Your task to perform on an android device: open chrome and create a bookmark for the current page Image 0: 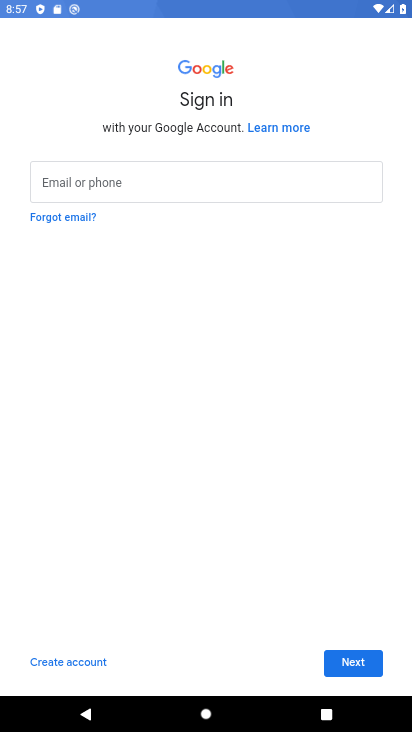
Step 0: press back button
Your task to perform on an android device: open chrome and create a bookmark for the current page Image 1: 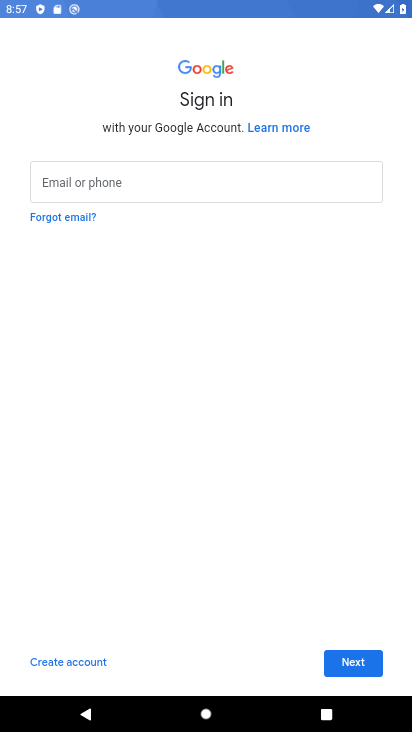
Step 1: press back button
Your task to perform on an android device: open chrome and create a bookmark for the current page Image 2: 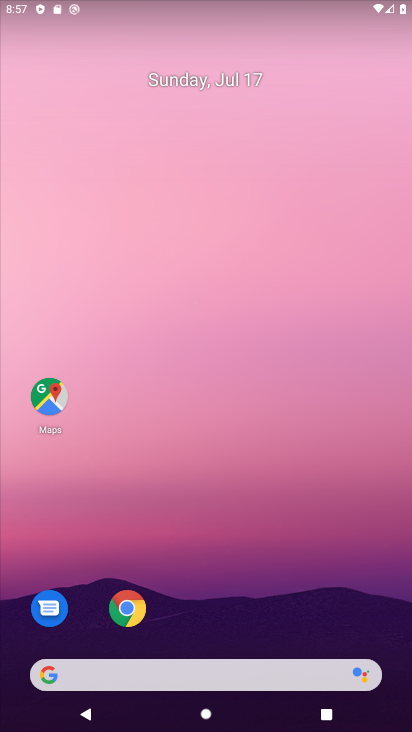
Step 2: drag from (282, 666) to (218, 401)
Your task to perform on an android device: open chrome and create a bookmark for the current page Image 3: 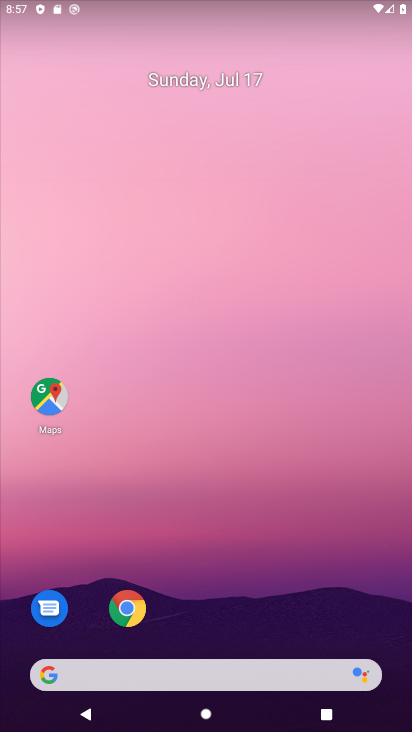
Step 3: drag from (285, 603) to (264, 129)
Your task to perform on an android device: open chrome and create a bookmark for the current page Image 4: 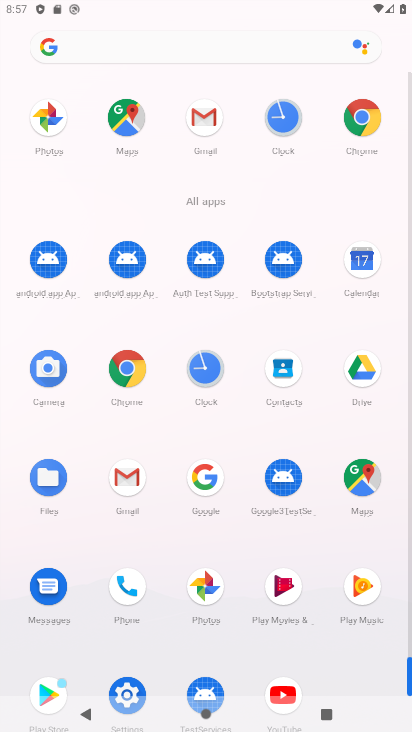
Step 4: drag from (240, 636) to (236, 218)
Your task to perform on an android device: open chrome and create a bookmark for the current page Image 5: 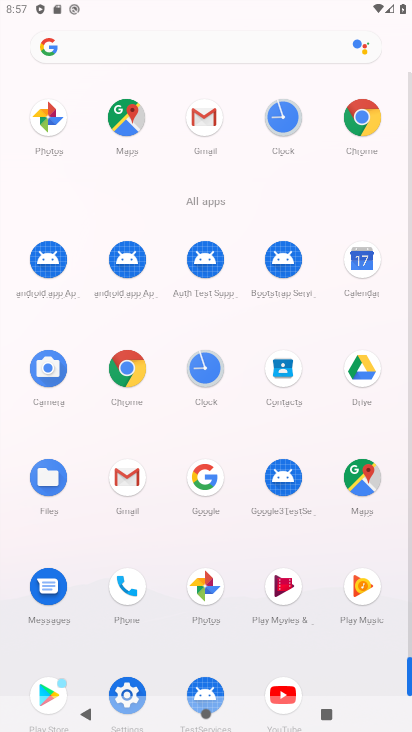
Step 5: click (352, 125)
Your task to perform on an android device: open chrome and create a bookmark for the current page Image 6: 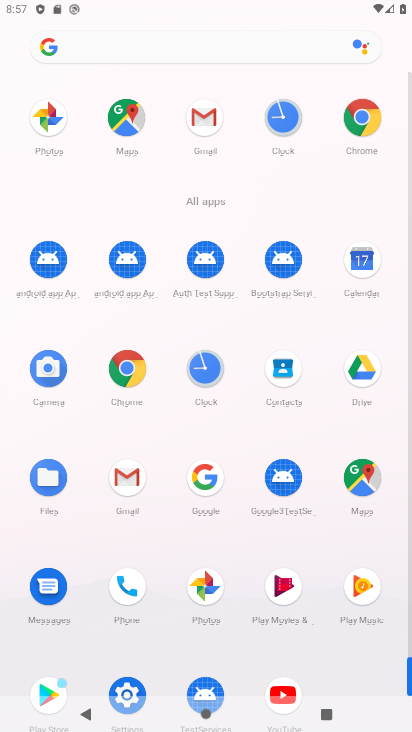
Step 6: click (352, 125)
Your task to perform on an android device: open chrome and create a bookmark for the current page Image 7: 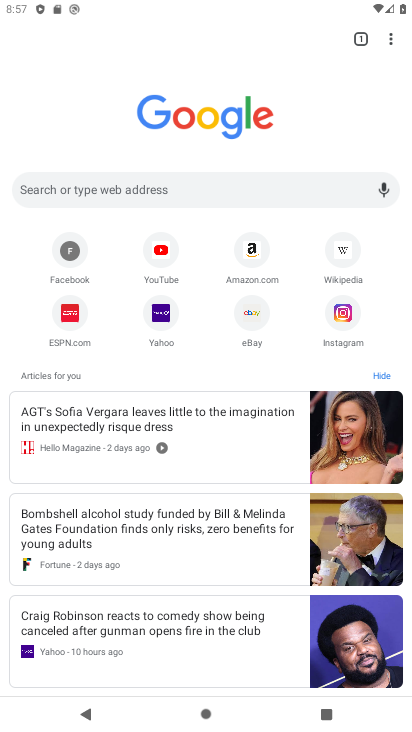
Step 7: drag from (391, 40) to (389, 88)
Your task to perform on an android device: open chrome and create a bookmark for the current page Image 8: 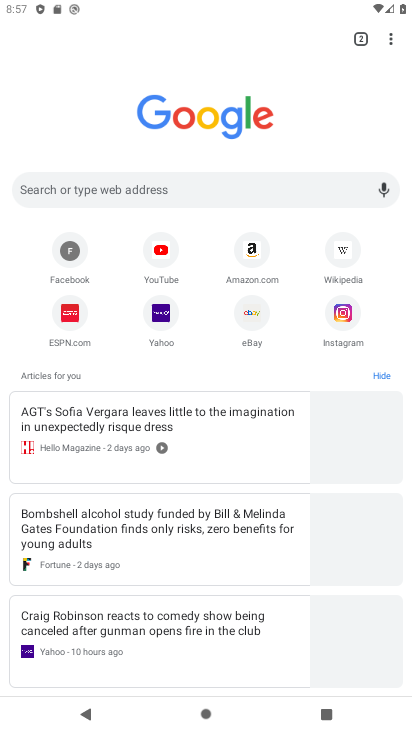
Step 8: click (257, 149)
Your task to perform on an android device: open chrome and create a bookmark for the current page Image 9: 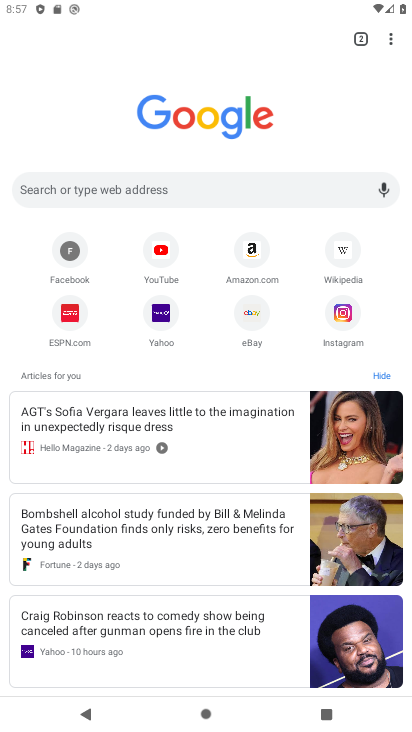
Step 9: click (257, 147)
Your task to perform on an android device: open chrome and create a bookmark for the current page Image 10: 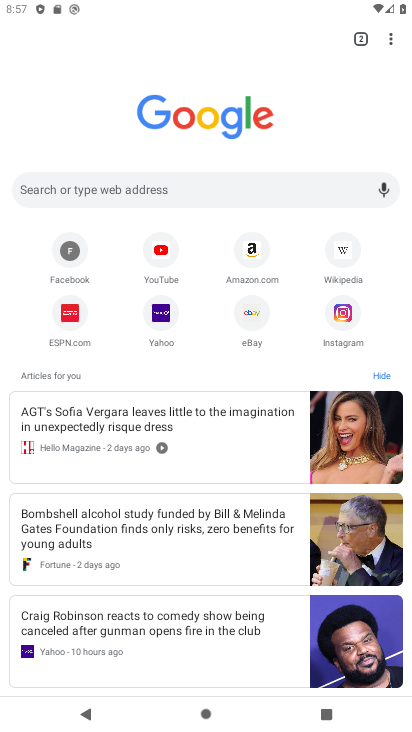
Step 10: click (125, 176)
Your task to perform on an android device: open chrome and create a bookmark for the current page Image 11: 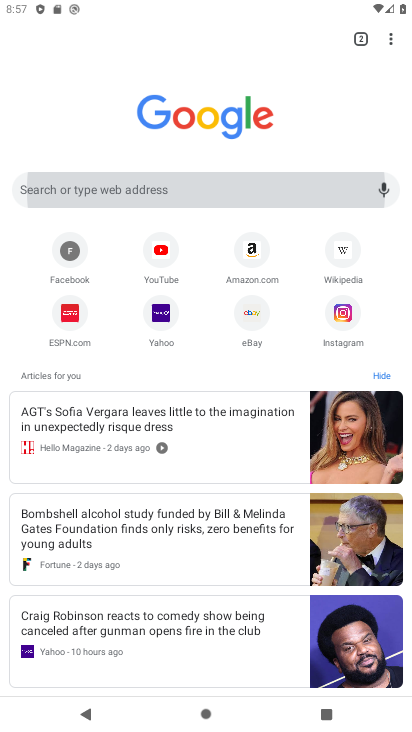
Step 11: click (124, 177)
Your task to perform on an android device: open chrome and create a bookmark for the current page Image 12: 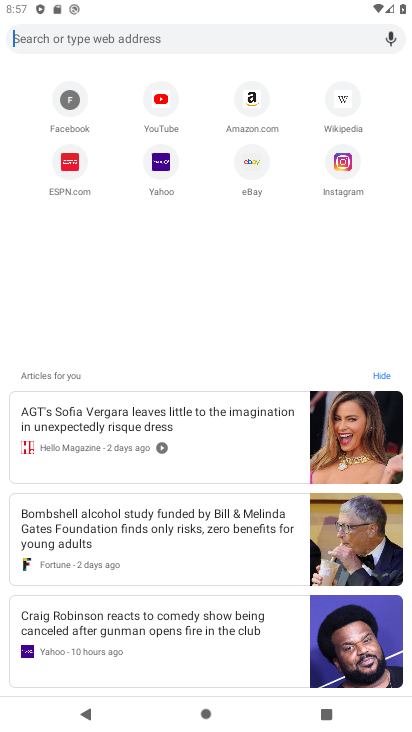
Step 12: click (122, 179)
Your task to perform on an android device: open chrome and create a bookmark for the current page Image 13: 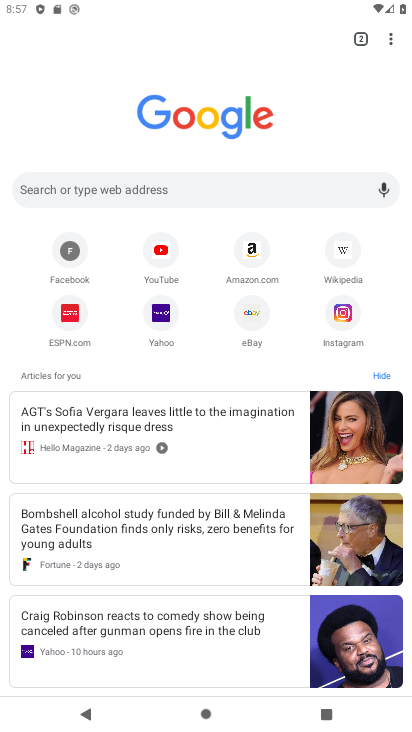
Step 13: type "mar.com"
Your task to perform on an android device: open chrome and create a bookmark for the current page Image 14: 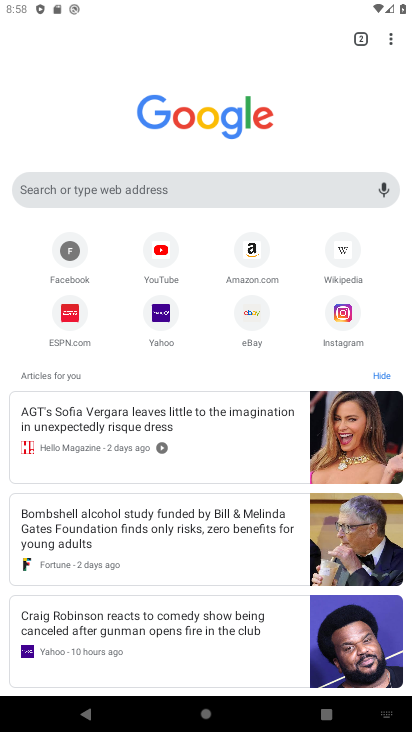
Step 14: click (55, 190)
Your task to perform on an android device: open chrome and create a bookmark for the current page Image 15: 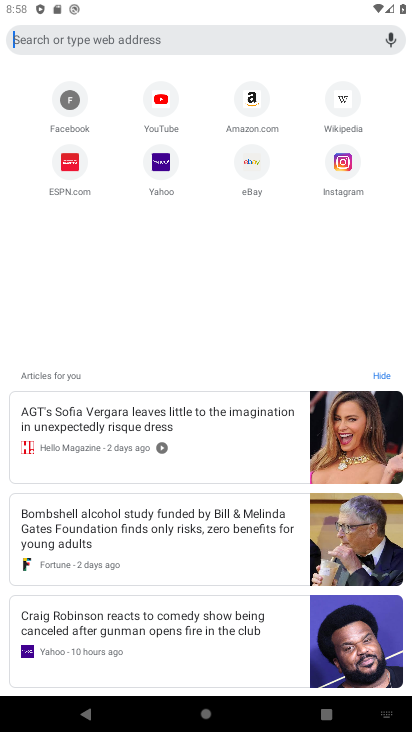
Step 15: click (55, 190)
Your task to perform on an android device: open chrome and create a bookmark for the current page Image 16: 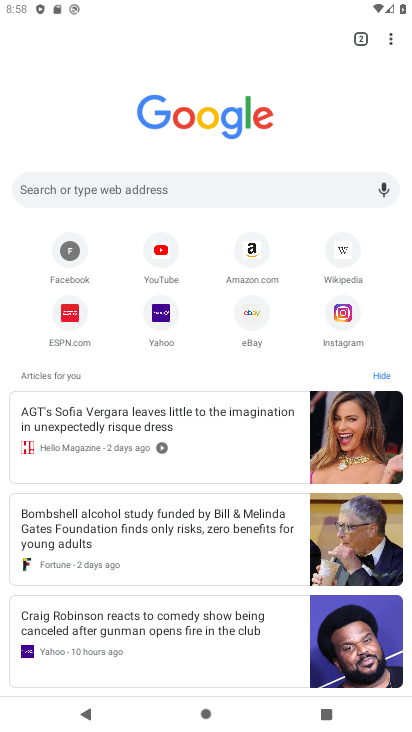
Step 16: click (32, 176)
Your task to perform on an android device: open chrome and create a bookmark for the current page Image 17: 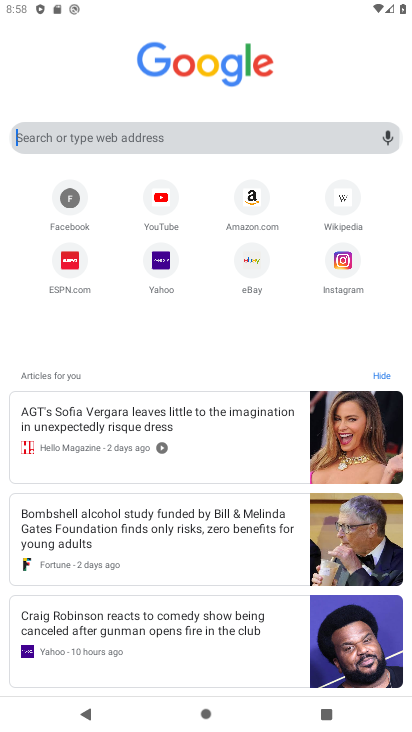
Step 17: click (32, 176)
Your task to perform on an android device: open chrome and create a bookmark for the current page Image 18: 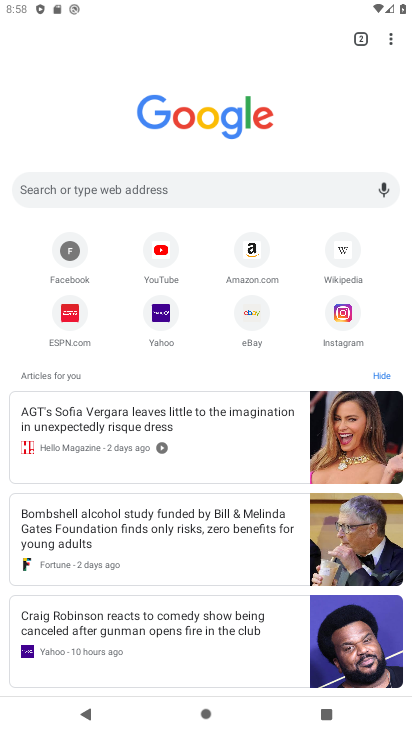
Step 18: click (48, 181)
Your task to perform on an android device: open chrome and create a bookmark for the current page Image 19: 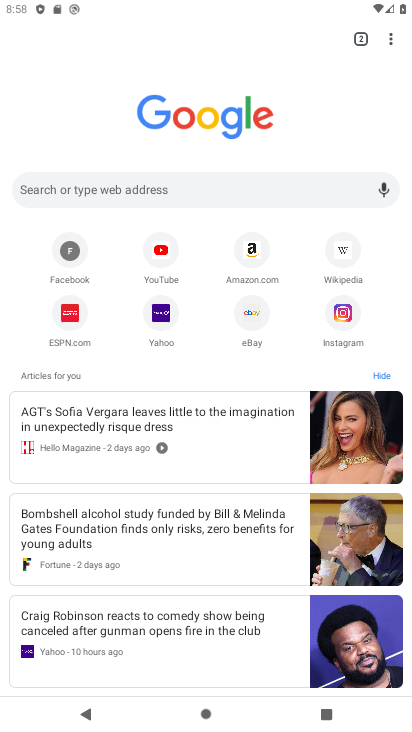
Step 19: click (48, 181)
Your task to perform on an android device: open chrome and create a bookmark for the current page Image 20: 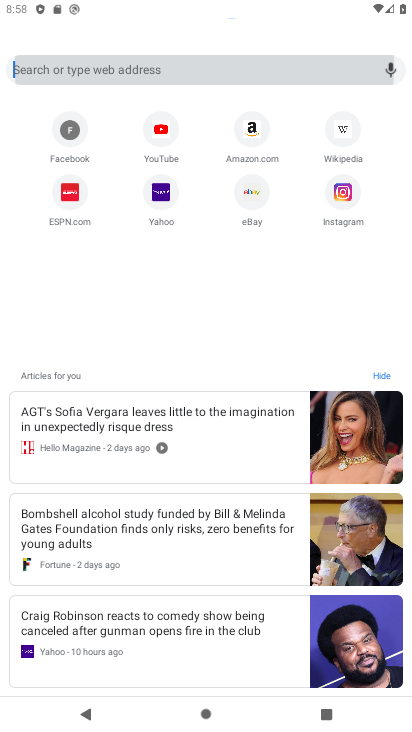
Step 20: click (48, 181)
Your task to perform on an android device: open chrome and create a bookmark for the current page Image 21: 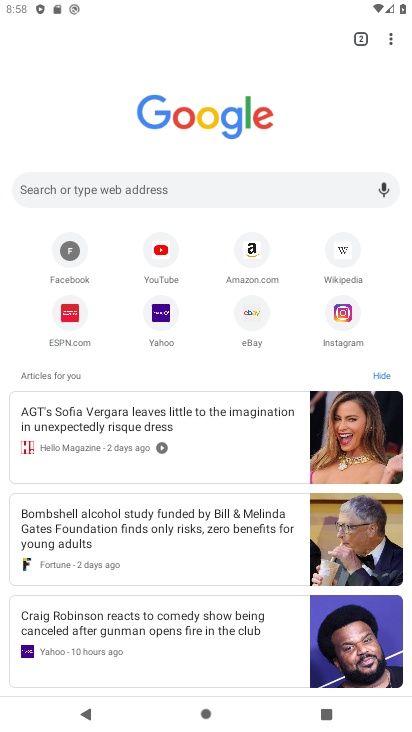
Step 21: click (36, 177)
Your task to perform on an android device: open chrome and create a bookmark for the current page Image 22: 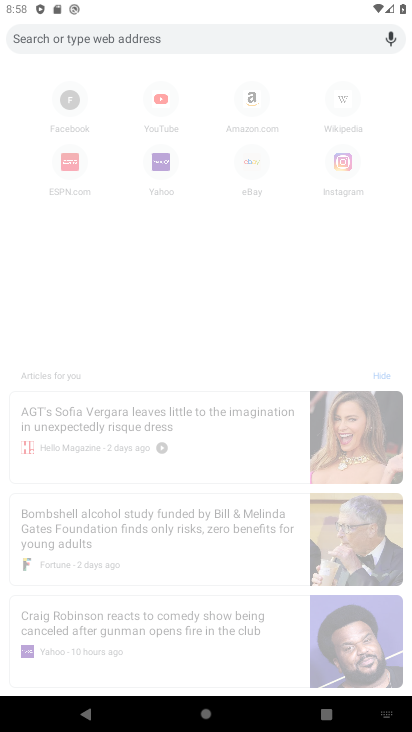
Step 22: type "jan.com"
Your task to perform on an android device: open chrome and create a bookmark for the current page Image 23: 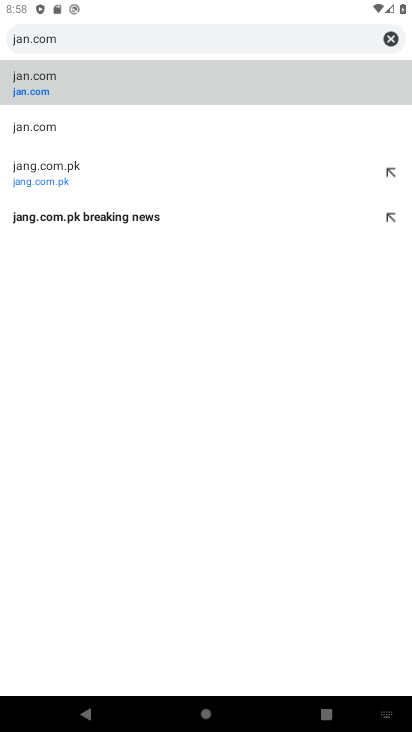
Step 23: click (31, 90)
Your task to perform on an android device: open chrome and create a bookmark for the current page Image 24: 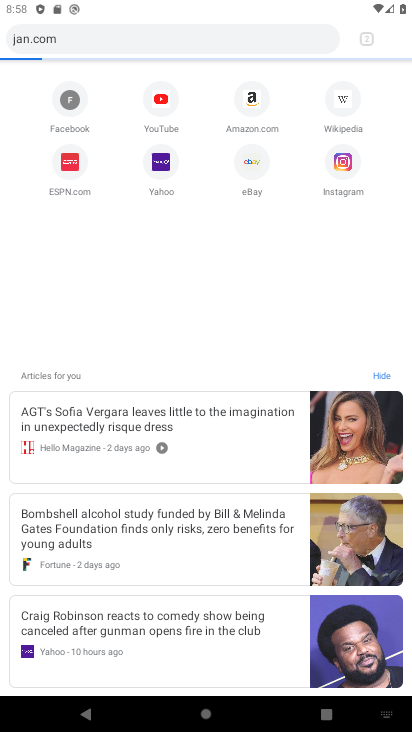
Step 24: click (32, 89)
Your task to perform on an android device: open chrome and create a bookmark for the current page Image 25: 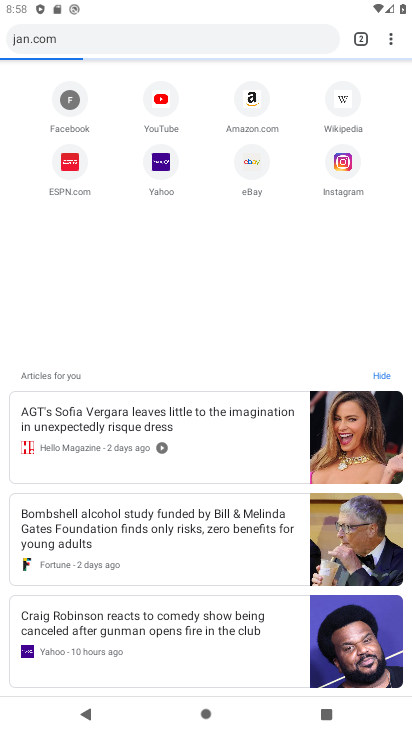
Step 25: click (32, 89)
Your task to perform on an android device: open chrome and create a bookmark for the current page Image 26: 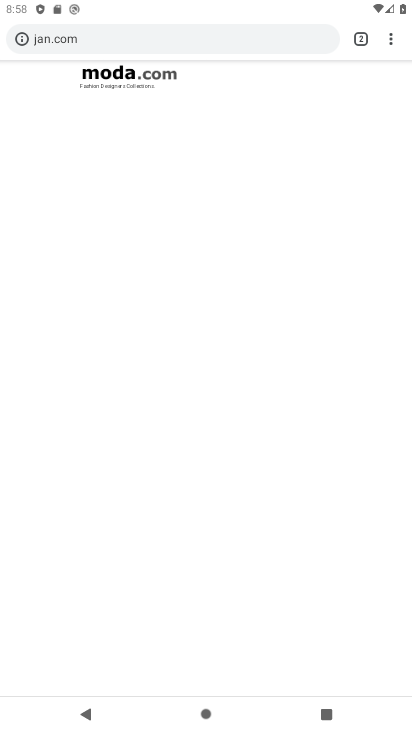
Step 26: click (126, 73)
Your task to perform on an android device: open chrome and create a bookmark for the current page Image 27: 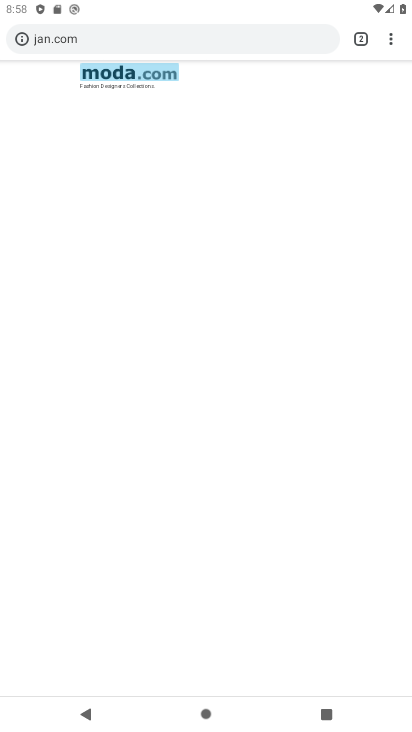
Step 27: click (125, 74)
Your task to perform on an android device: open chrome and create a bookmark for the current page Image 28: 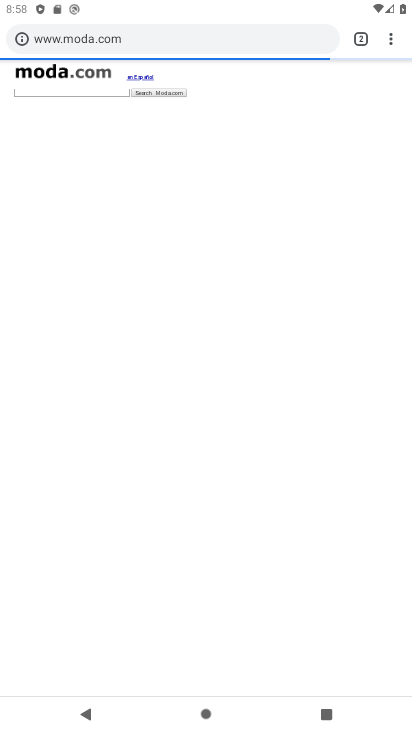
Step 28: drag from (392, 37) to (202, 285)
Your task to perform on an android device: open chrome and create a bookmark for the current page Image 29: 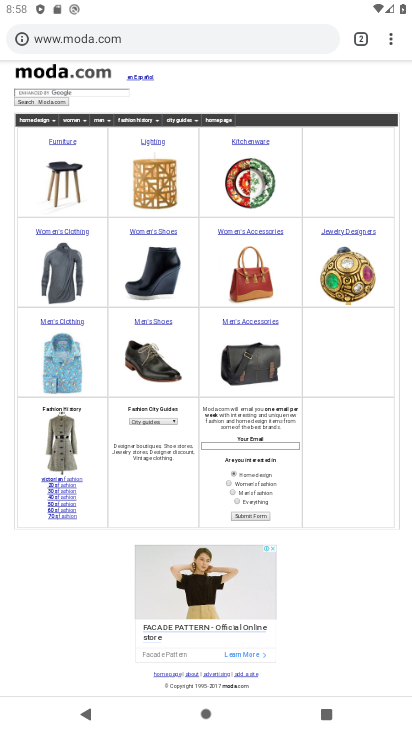
Step 29: click (199, 92)
Your task to perform on an android device: open chrome and create a bookmark for the current page Image 30: 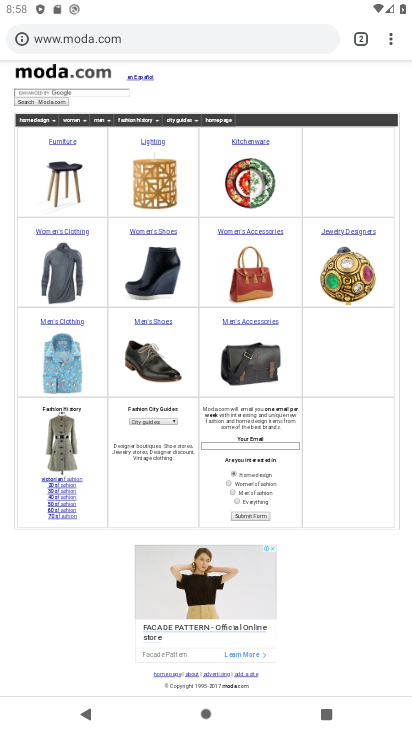
Step 30: click (226, 83)
Your task to perform on an android device: open chrome and create a bookmark for the current page Image 31: 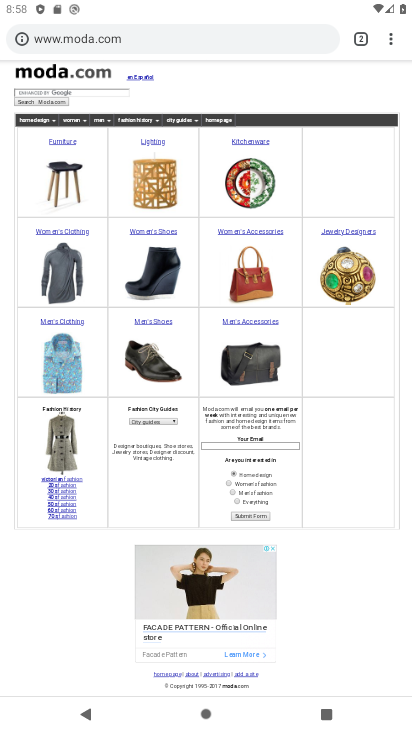
Step 31: click (167, 87)
Your task to perform on an android device: open chrome and create a bookmark for the current page Image 32: 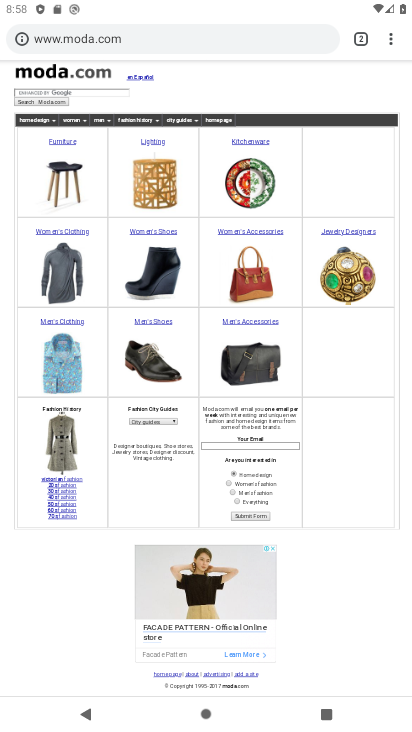
Step 32: click (189, 81)
Your task to perform on an android device: open chrome and create a bookmark for the current page Image 33: 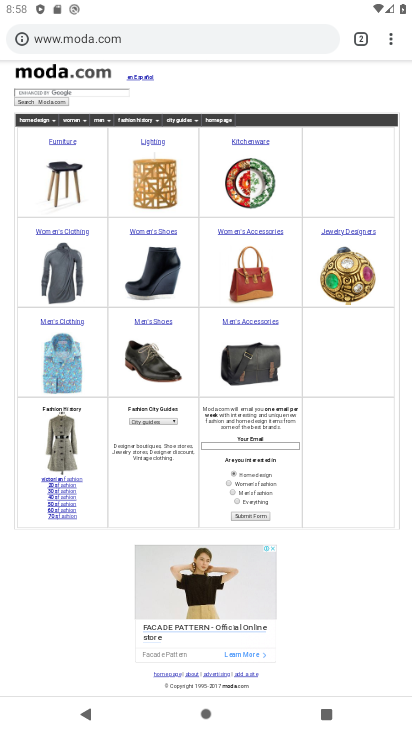
Step 33: drag from (388, 37) to (184, 82)
Your task to perform on an android device: open chrome and create a bookmark for the current page Image 34: 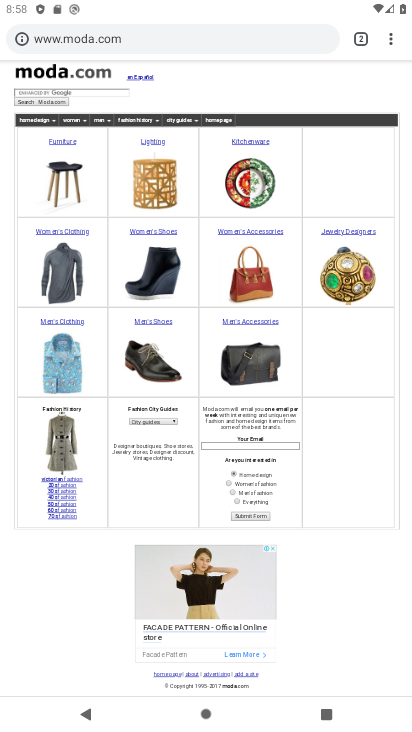
Step 34: click (267, 40)
Your task to perform on an android device: open chrome and create a bookmark for the current page Image 35: 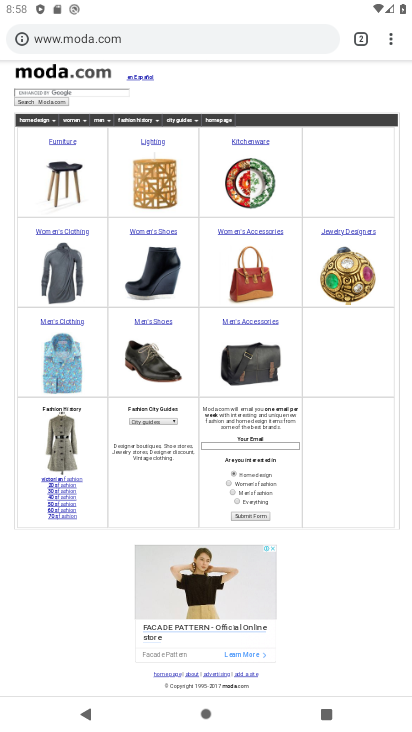
Step 35: click (269, 41)
Your task to perform on an android device: open chrome and create a bookmark for the current page Image 36: 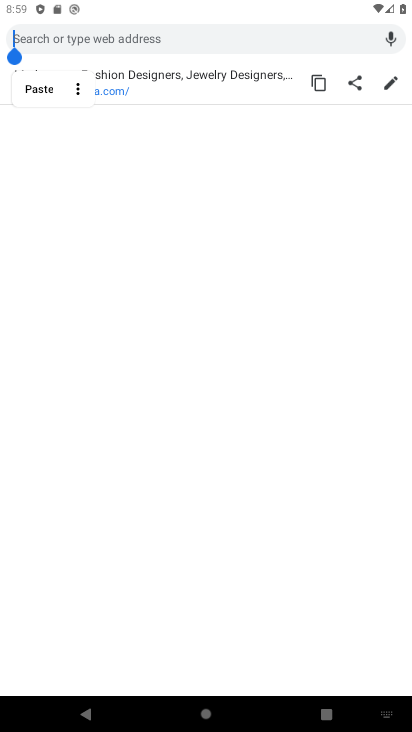
Step 36: click (169, 91)
Your task to perform on an android device: open chrome and create a bookmark for the current page Image 37: 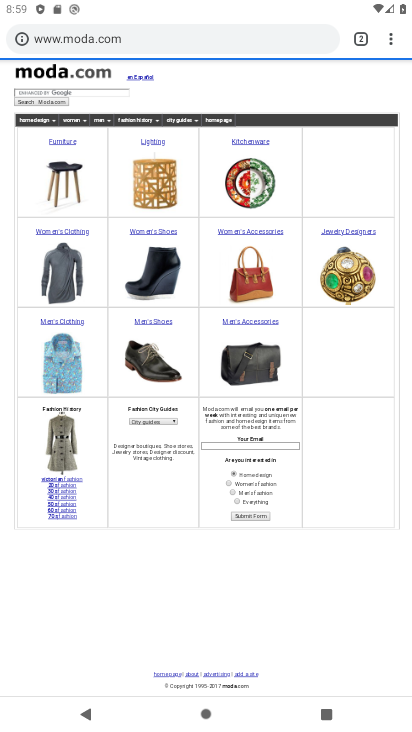
Step 37: click (169, 94)
Your task to perform on an android device: open chrome and create a bookmark for the current page Image 38: 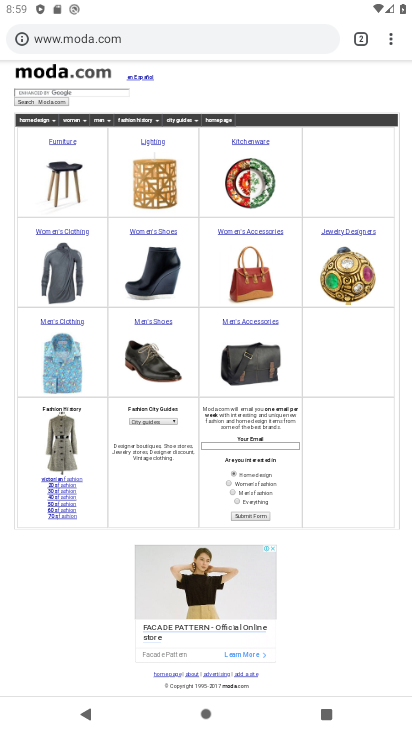
Step 38: drag from (382, 51) to (275, 37)
Your task to perform on an android device: open chrome and create a bookmark for the current page Image 39: 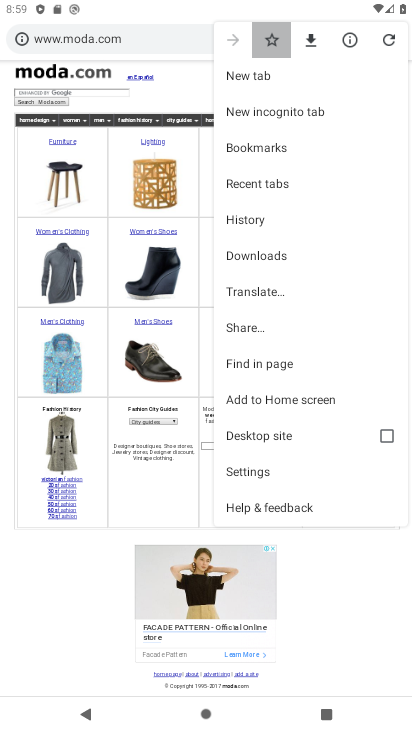
Step 39: click (268, 49)
Your task to perform on an android device: open chrome and create a bookmark for the current page Image 40: 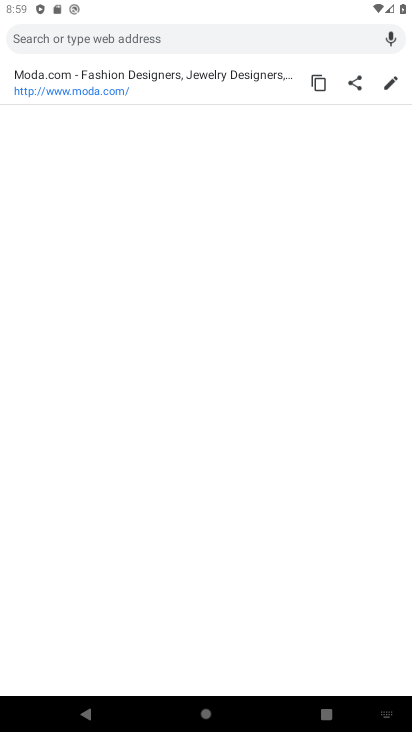
Step 40: task complete